Your task to perform on an android device: turn on translation in the chrome app Image 0: 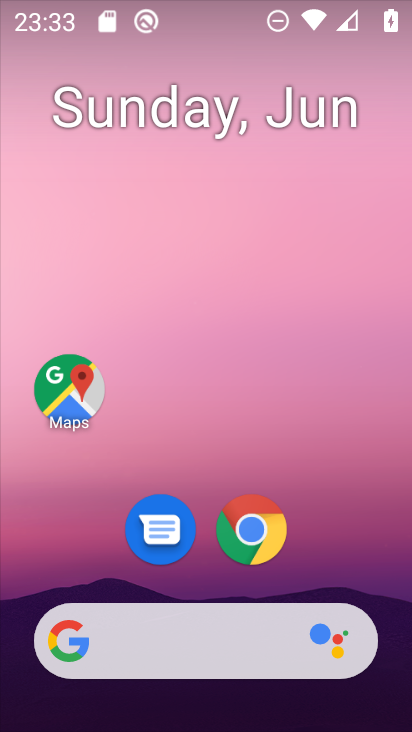
Step 0: click (254, 530)
Your task to perform on an android device: turn on translation in the chrome app Image 1: 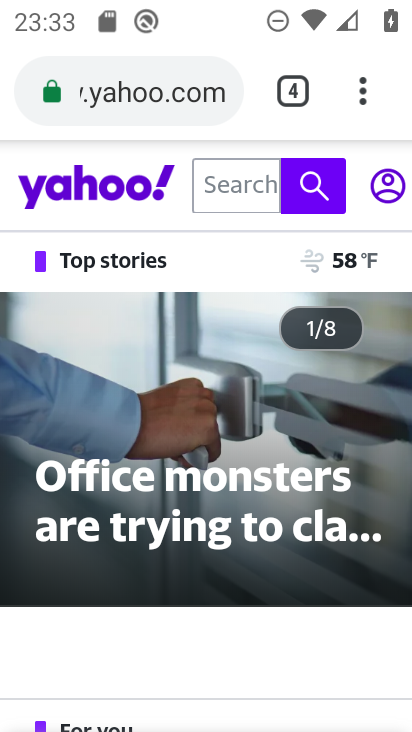
Step 1: click (355, 100)
Your task to perform on an android device: turn on translation in the chrome app Image 2: 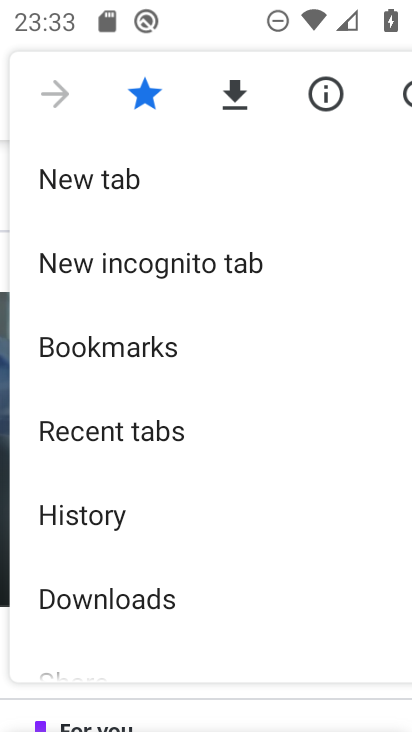
Step 2: drag from (232, 584) to (274, 145)
Your task to perform on an android device: turn on translation in the chrome app Image 3: 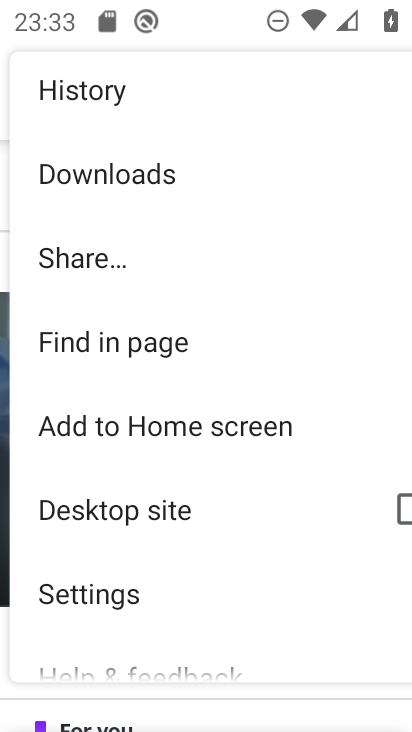
Step 3: click (83, 584)
Your task to perform on an android device: turn on translation in the chrome app Image 4: 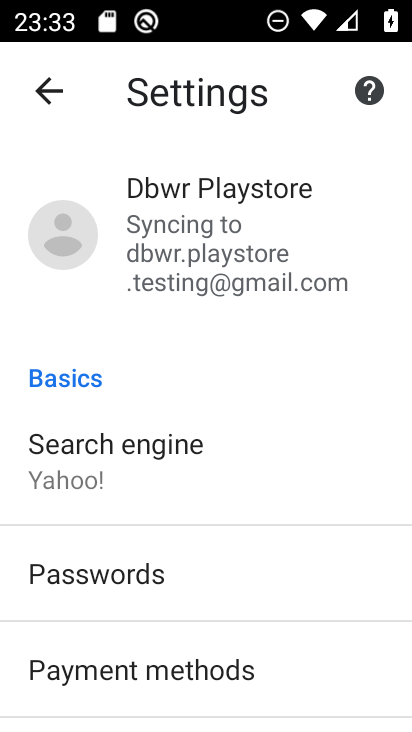
Step 4: drag from (248, 654) to (245, 139)
Your task to perform on an android device: turn on translation in the chrome app Image 5: 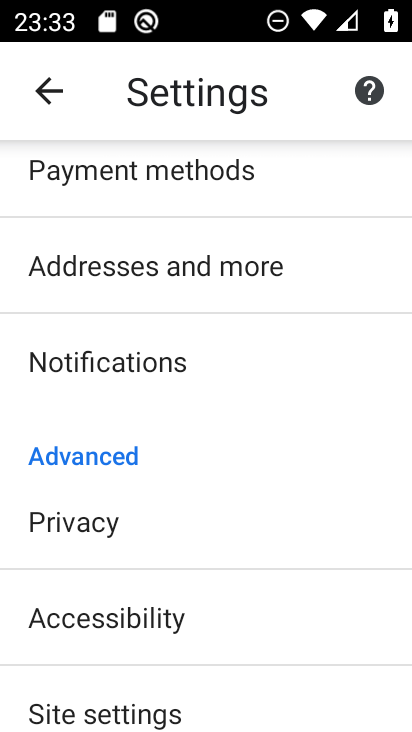
Step 5: drag from (150, 654) to (204, 264)
Your task to perform on an android device: turn on translation in the chrome app Image 6: 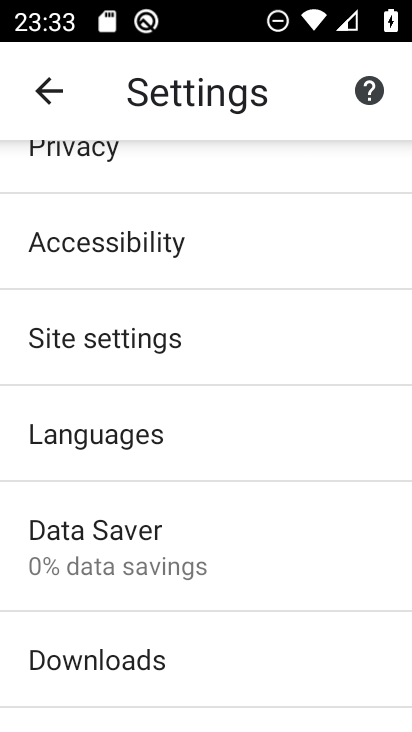
Step 6: click (77, 458)
Your task to perform on an android device: turn on translation in the chrome app Image 7: 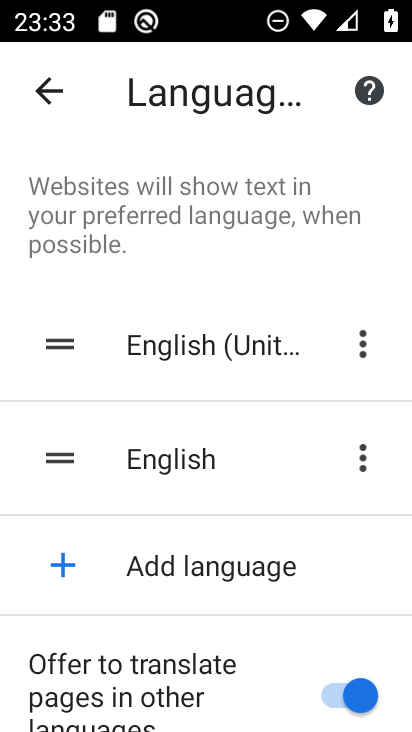
Step 7: task complete